Your task to perform on an android device: When is my next appointment? Image 0: 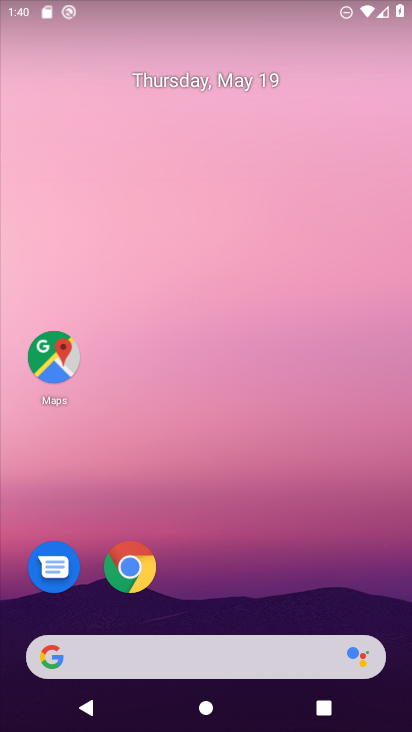
Step 0: drag from (296, 539) to (345, 249)
Your task to perform on an android device: When is my next appointment? Image 1: 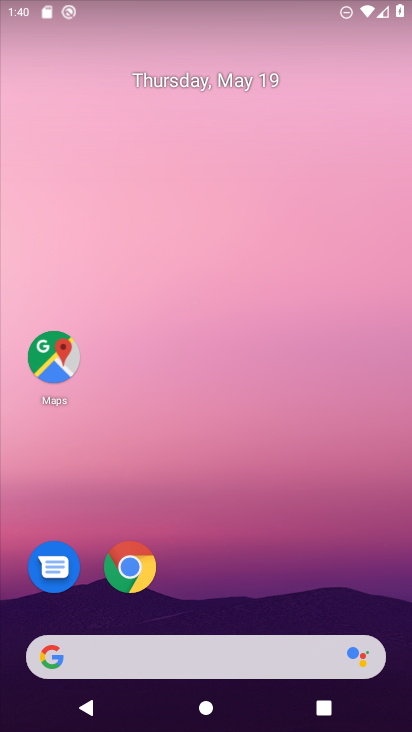
Step 1: drag from (264, 547) to (262, 110)
Your task to perform on an android device: When is my next appointment? Image 2: 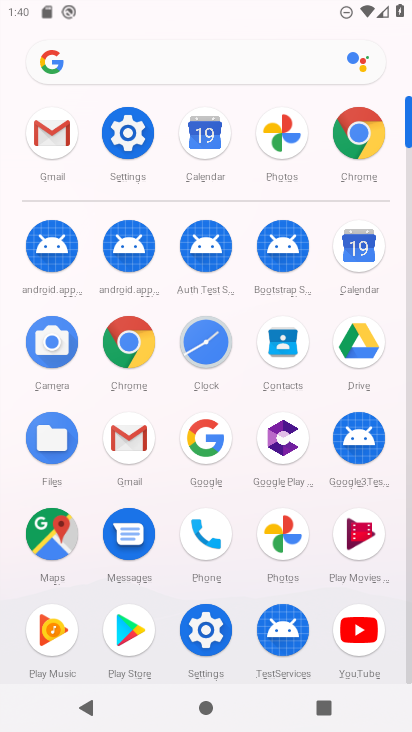
Step 2: click (186, 140)
Your task to perform on an android device: When is my next appointment? Image 3: 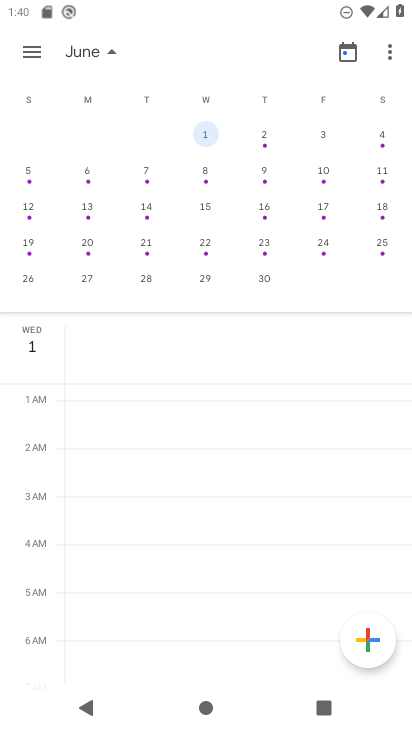
Step 3: click (29, 41)
Your task to perform on an android device: When is my next appointment? Image 4: 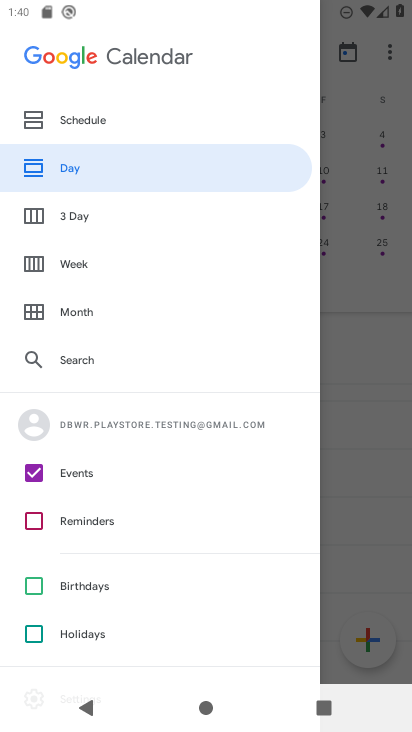
Step 4: click (108, 123)
Your task to perform on an android device: When is my next appointment? Image 5: 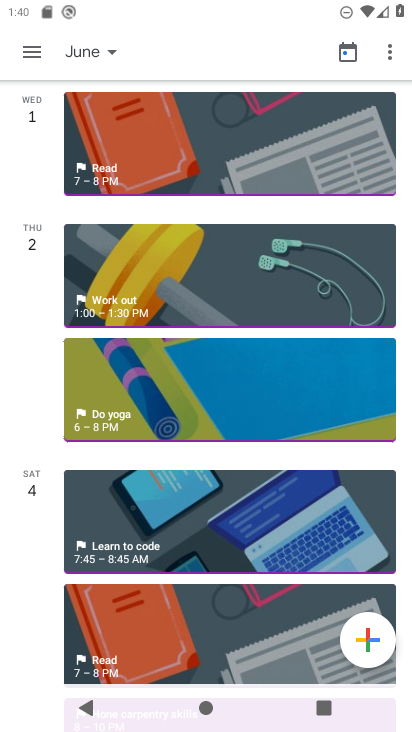
Step 5: click (108, 123)
Your task to perform on an android device: When is my next appointment? Image 6: 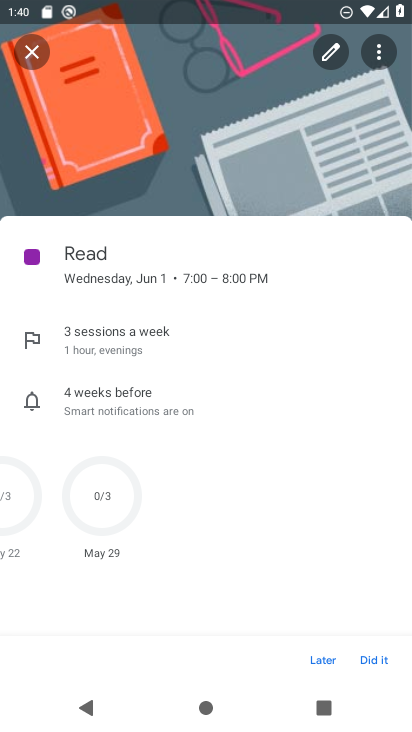
Step 6: press back button
Your task to perform on an android device: When is my next appointment? Image 7: 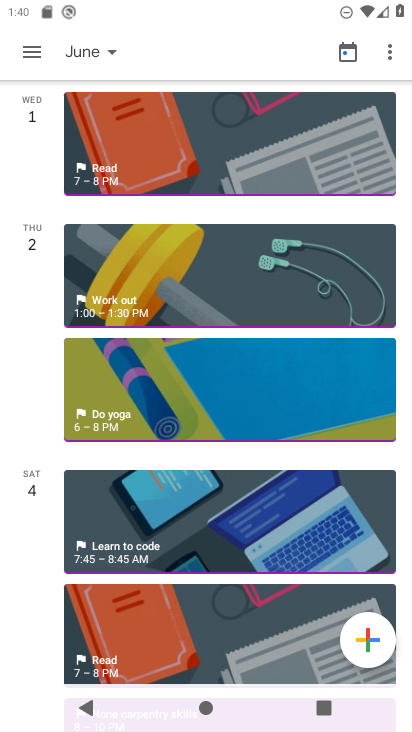
Step 7: click (110, 51)
Your task to perform on an android device: When is my next appointment? Image 8: 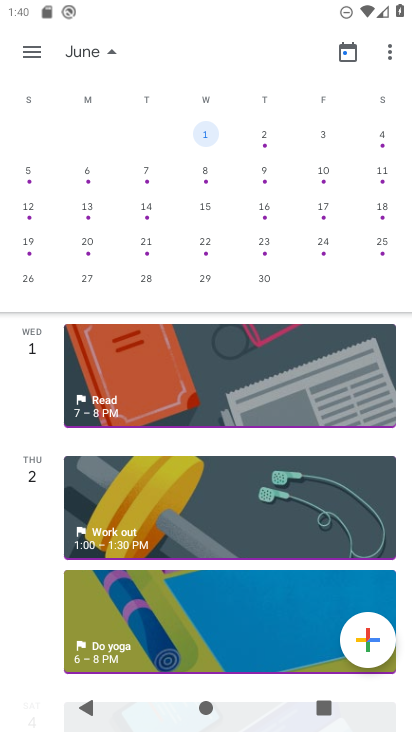
Step 8: drag from (26, 140) to (390, 128)
Your task to perform on an android device: When is my next appointment? Image 9: 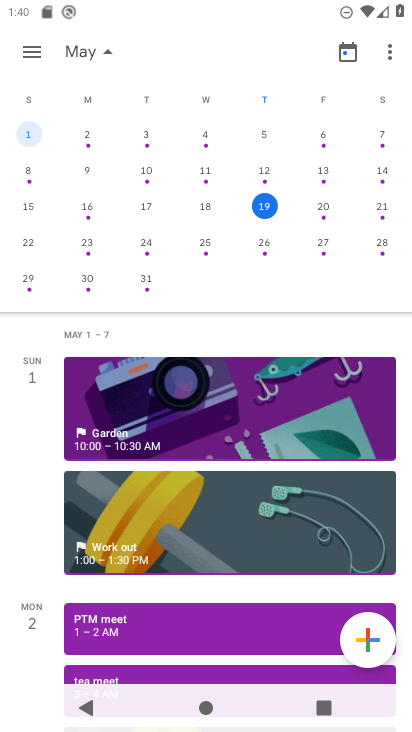
Step 9: click (87, 49)
Your task to perform on an android device: When is my next appointment? Image 10: 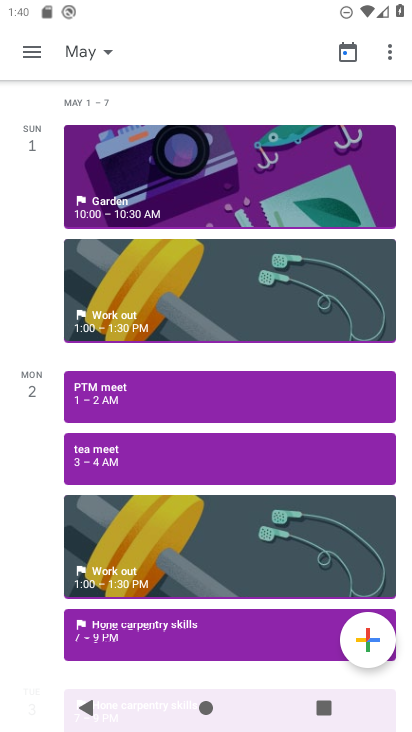
Step 10: task complete